Your task to perform on an android device: Go to calendar. Show me events next week Image 0: 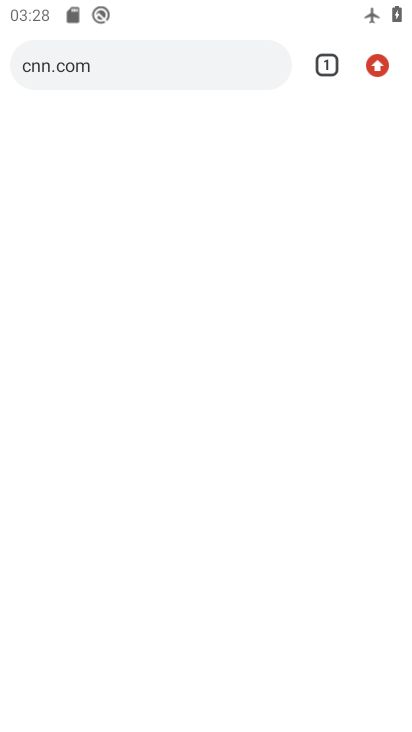
Step 0: press home button
Your task to perform on an android device: Go to calendar. Show me events next week Image 1: 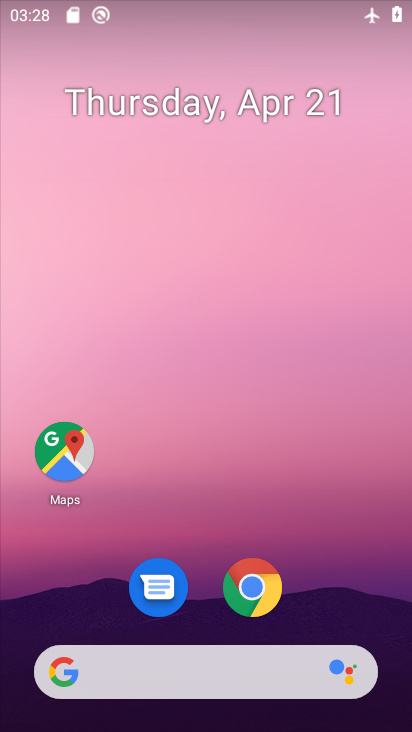
Step 1: drag from (354, 587) to (371, 130)
Your task to perform on an android device: Go to calendar. Show me events next week Image 2: 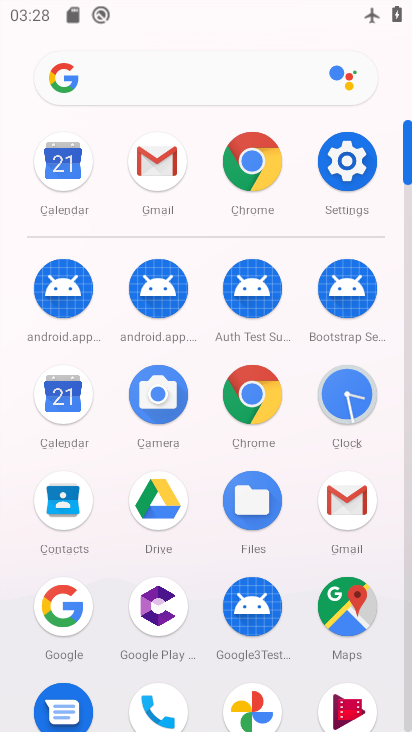
Step 2: click (69, 423)
Your task to perform on an android device: Go to calendar. Show me events next week Image 3: 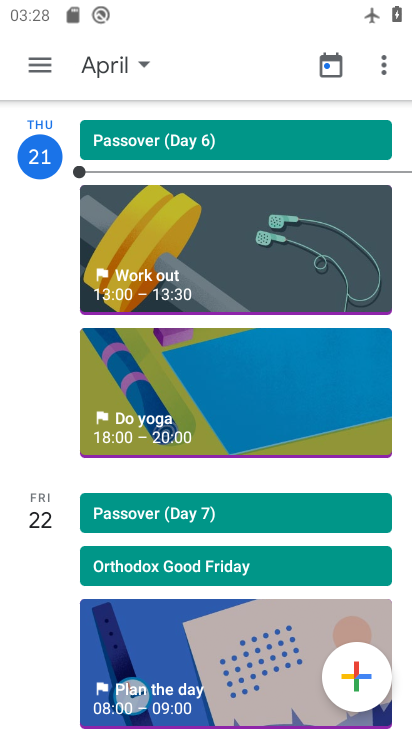
Step 3: click (142, 61)
Your task to perform on an android device: Go to calendar. Show me events next week Image 4: 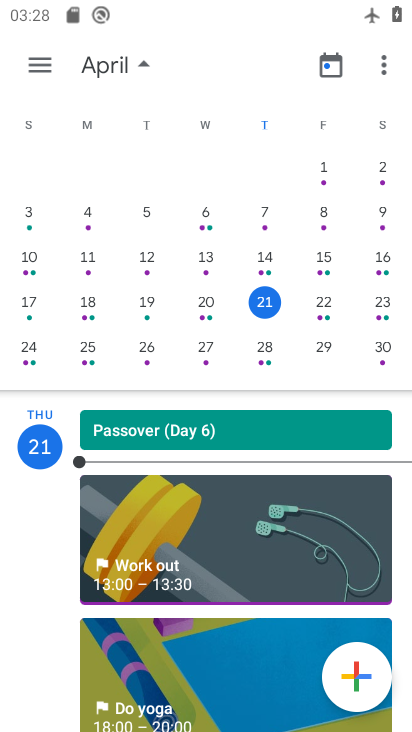
Step 4: click (88, 350)
Your task to perform on an android device: Go to calendar. Show me events next week Image 5: 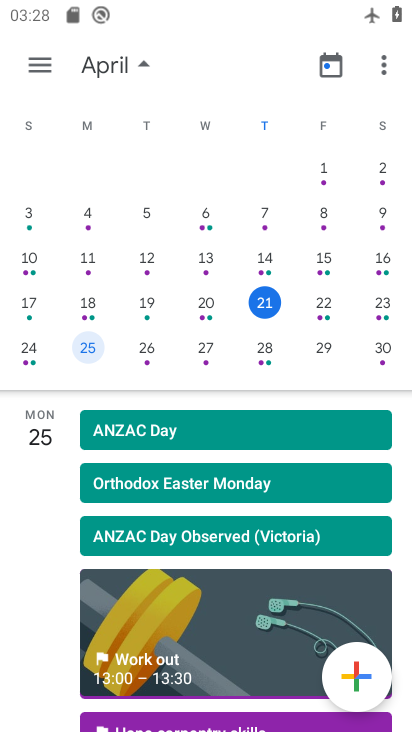
Step 5: task complete